Your task to perform on an android device: What's the weather going to be tomorrow? Image 0: 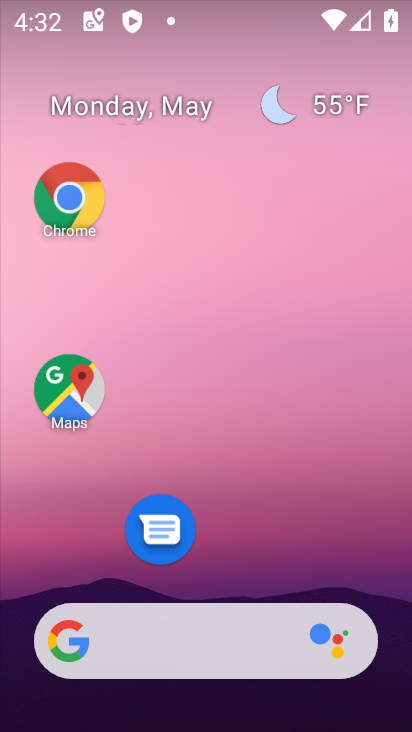
Step 0: drag from (151, 573) to (156, 178)
Your task to perform on an android device: What's the weather going to be tomorrow? Image 1: 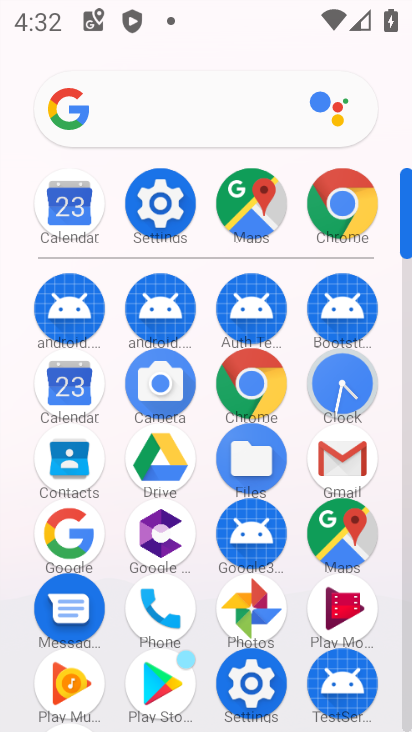
Step 1: click (69, 535)
Your task to perform on an android device: What's the weather going to be tomorrow? Image 2: 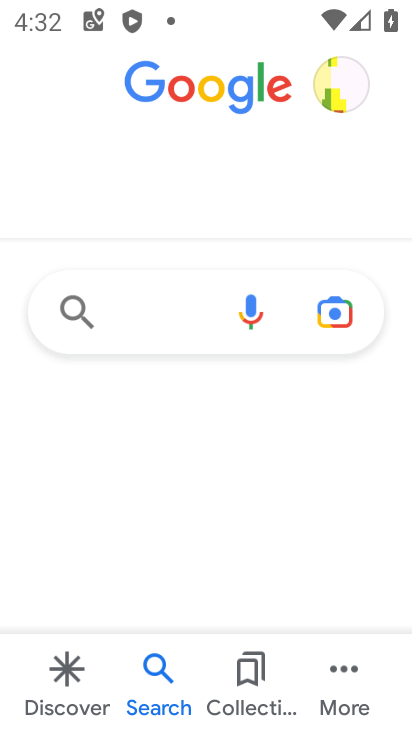
Step 2: click (147, 323)
Your task to perform on an android device: What's the weather going to be tomorrow? Image 3: 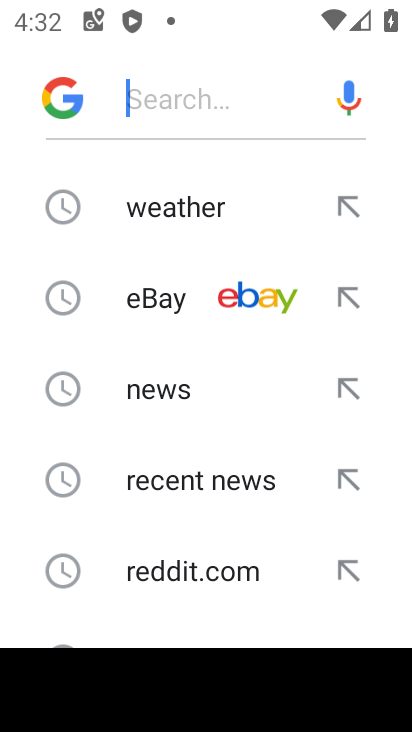
Step 3: click (205, 212)
Your task to perform on an android device: What's the weather going to be tomorrow? Image 4: 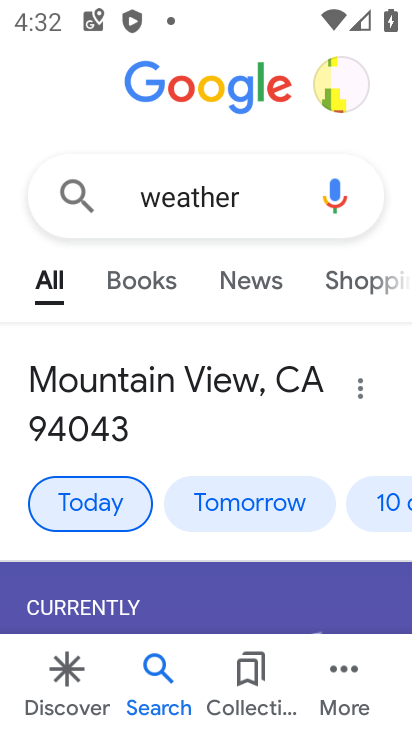
Step 4: click (240, 506)
Your task to perform on an android device: What's the weather going to be tomorrow? Image 5: 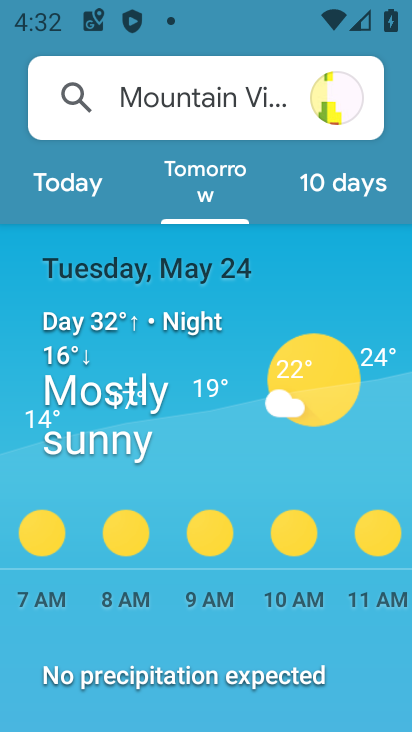
Step 5: task complete